Your task to perform on an android device: turn on the 24-hour format for clock Image 0: 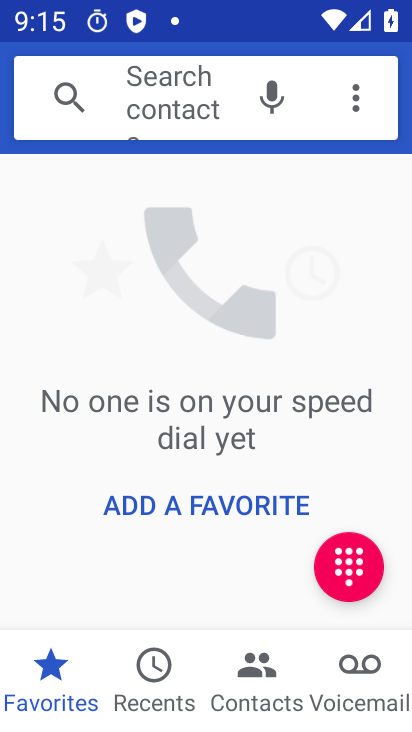
Step 0: press home button
Your task to perform on an android device: turn on the 24-hour format for clock Image 1: 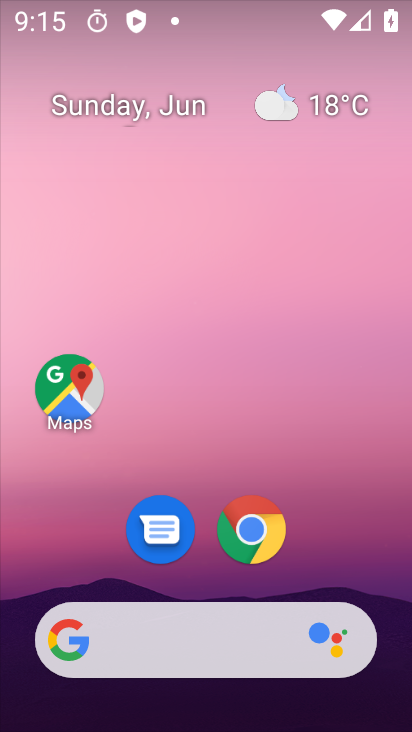
Step 1: drag from (286, 465) to (330, 21)
Your task to perform on an android device: turn on the 24-hour format for clock Image 2: 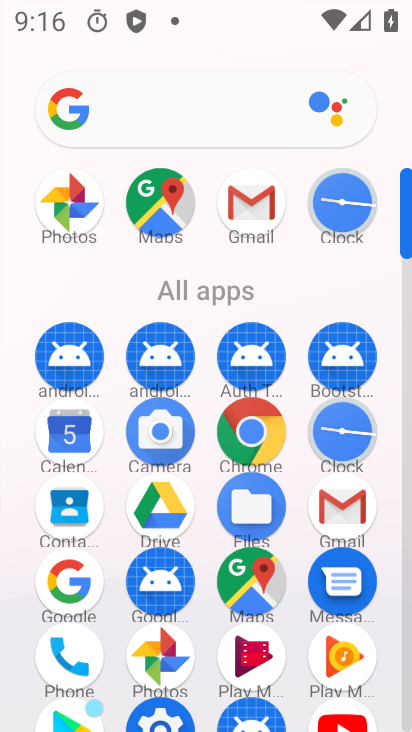
Step 2: click (333, 429)
Your task to perform on an android device: turn on the 24-hour format for clock Image 3: 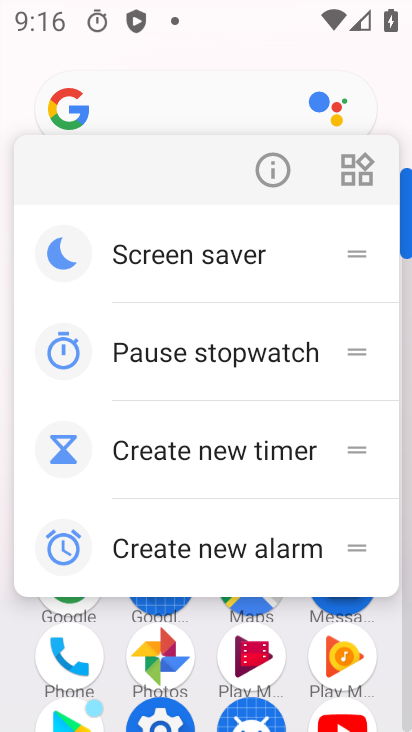
Step 3: click (403, 478)
Your task to perform on an android device: turn on the 24-hour format for clock Image 4: 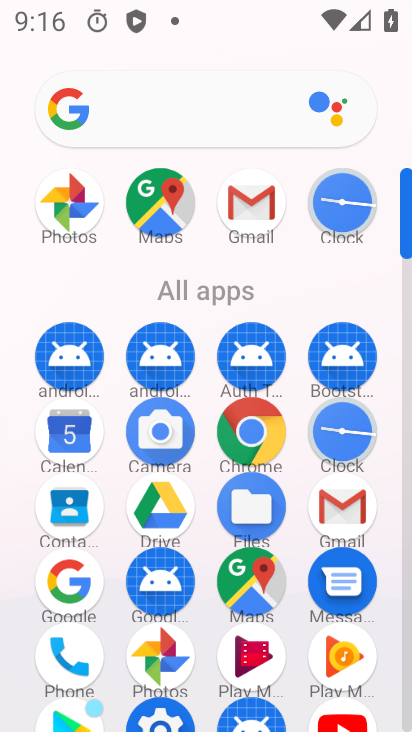
Step 4: click (348, 421)
Your task to perform on an android device: turn on the 24-hour format for clock Image 5: 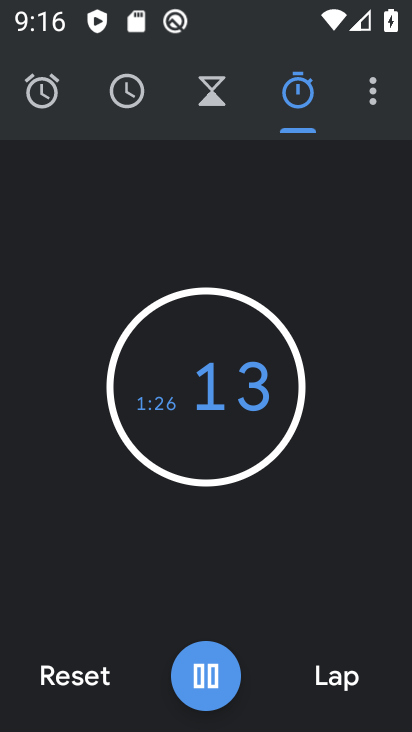
Step 5: click (371, 99)
Your task to perform on an android device: turn on the 24-hour format for clock Image 6: 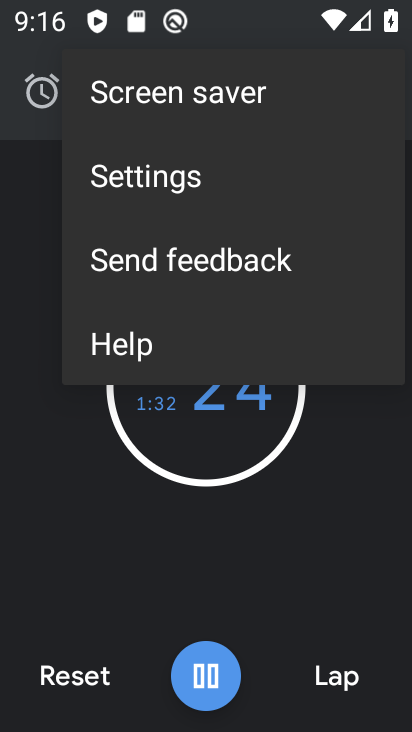
Step 6: click (169, 187)
Your task to perform on an android device: turn on the 24-hour format for clock Image 7: 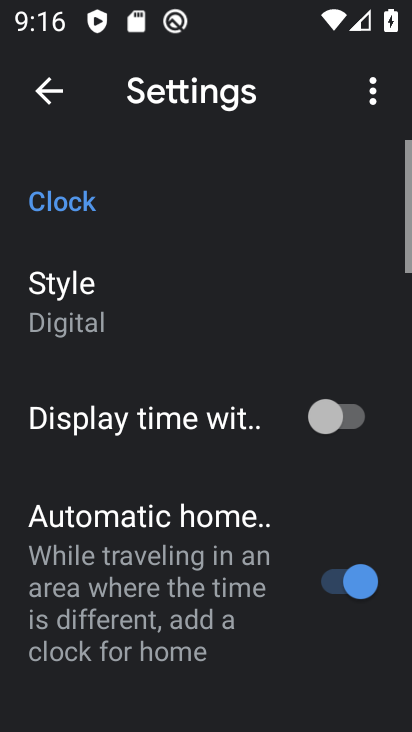
Step 7: drag from (230, 608) to (258, 146)
Your task to perform on an android device: turn on the 24-hour format for clock Image 8: 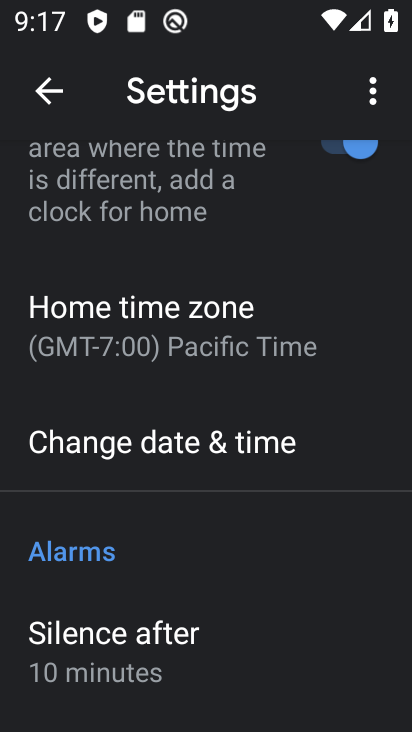
Step 8: click (203, 445)
Your task to perform on an android device: turn on the 24-hour format for clock Image 9: 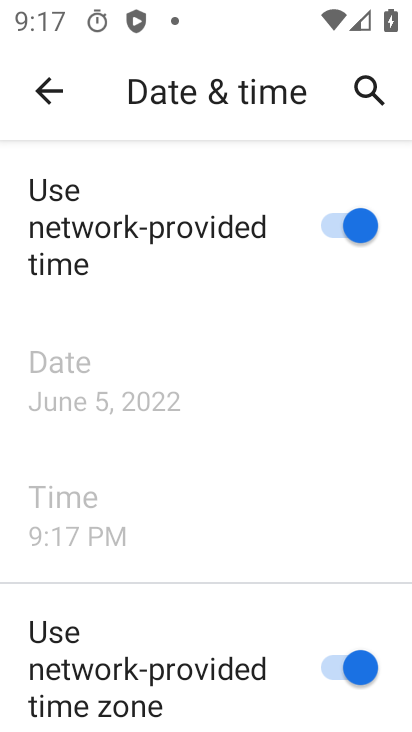
Step 9: drag from (172, 695) to (237, 139)
Your task to perform on an android device: turn on the 24-hour format for clock Image 10: 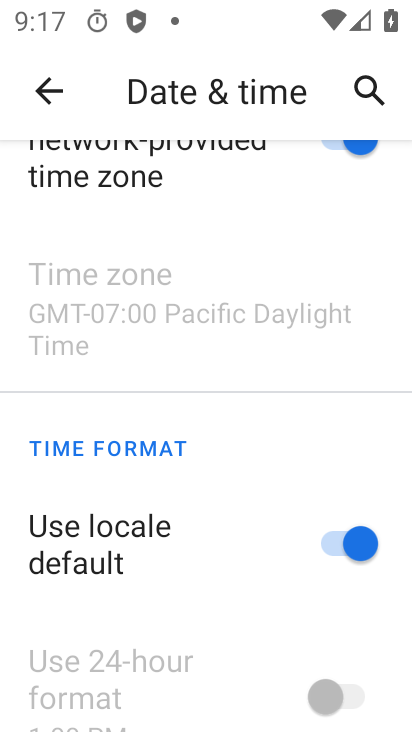
Step 10: drag from (181, 652) to (243, 359)
Your task to perform on an android device: turn on the 24-hour format for clock Image 11: 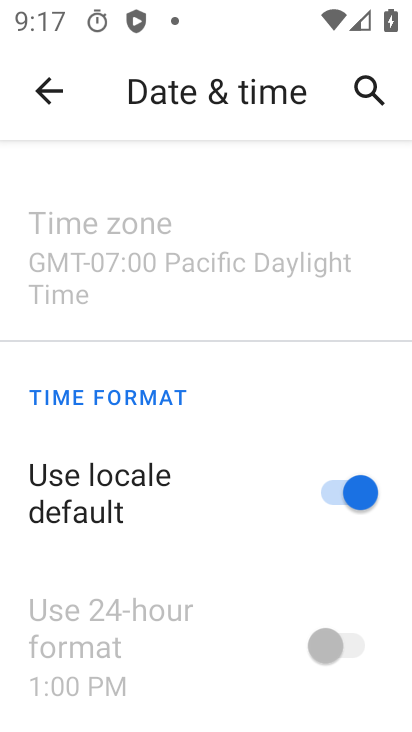
Step 11: click (351, 488)
Your task to perform on an android device: turn on the 24-hour format for clock Image 12: 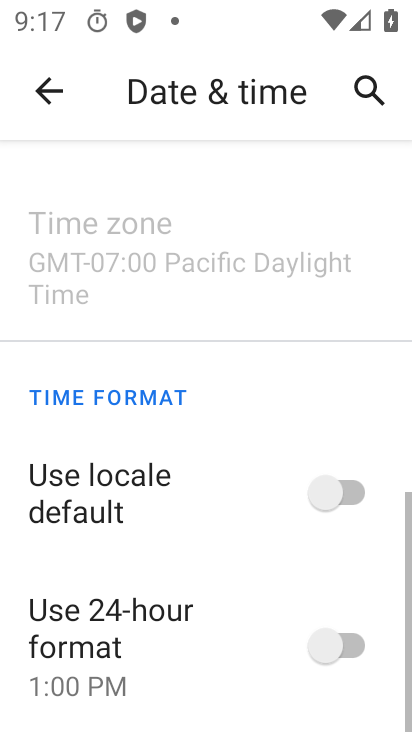
Step 12: click (343, 651)
Your task to perform on an android device: turn on the 24-hour format for clock Image 13: 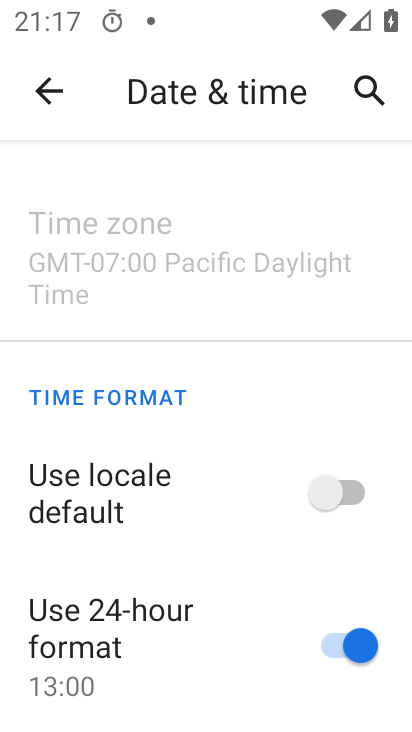
Step 13: task complete